Your task to perform on an android device: turn off wifi Image 0: 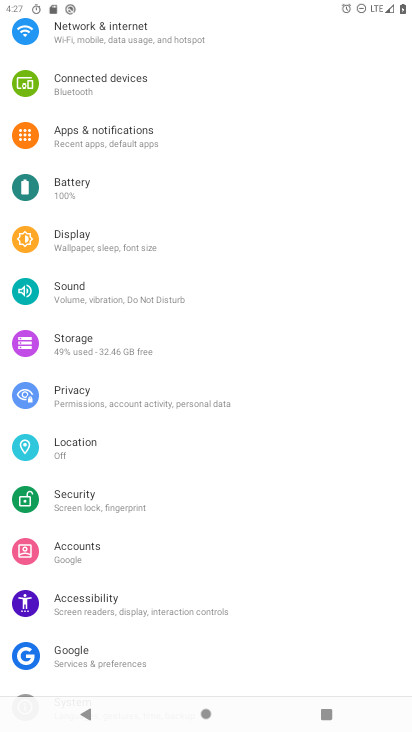
Step 0: press home button
Your task to perform on an android device: turn off wifi Image 1: 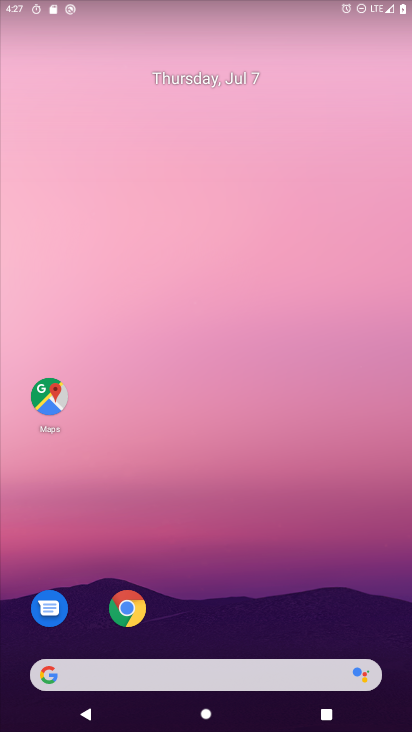
Step 1: drag from (249, 714) to (246, 106)
Your task to perform on an android device: turn off wifi Image 2: 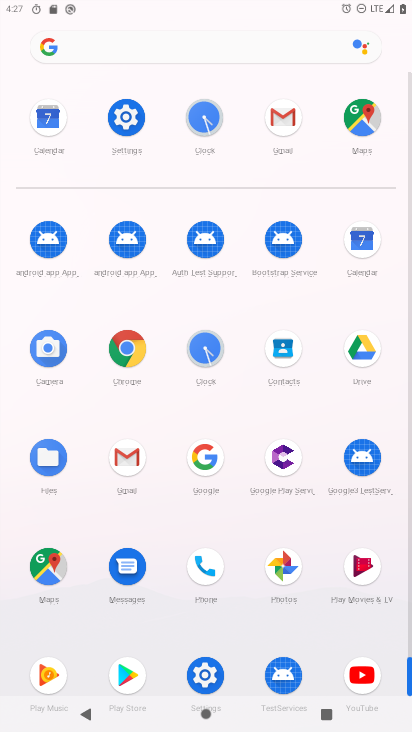
Step 2: click (125, 124)
Your task to perform on an android device: turn off wifi Image 3: 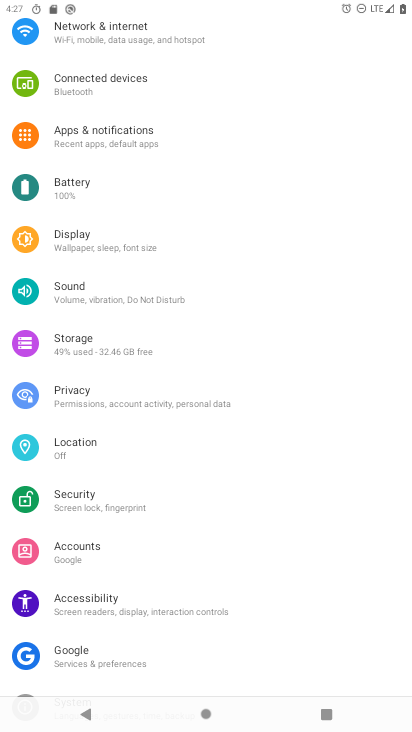
Step 3: drag from (138, 88) to (148, 154)
Your task to perform on an android device: turn off wifi Image 4: 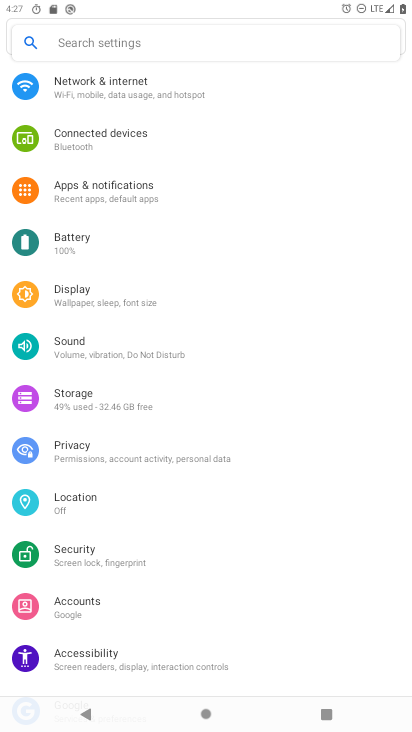
Step 4: drag from (169, 379) to (171, 424)
Your task to perform on an android device: turn off wifi Image 5: 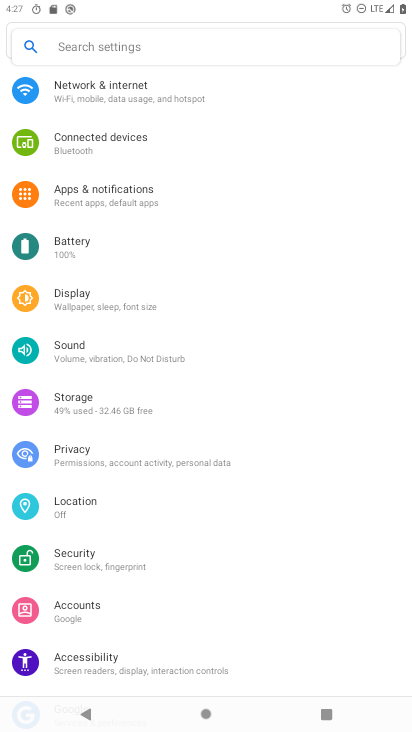
Step 5: click (111, 89)
Your task to perform on an android device: turn off wifi Image 6: 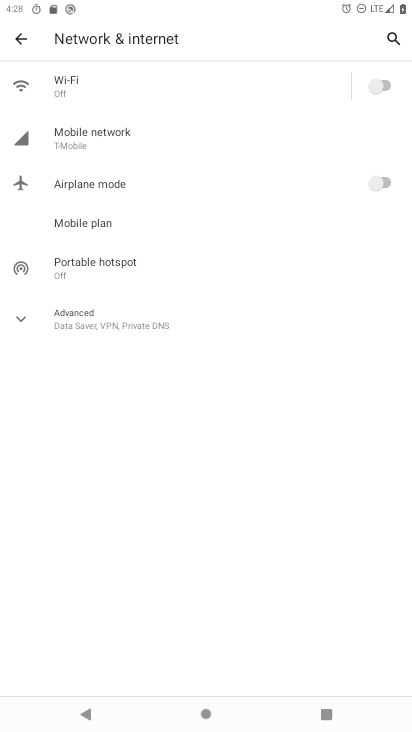
Step 6: task complete